Your task to perform on an android device: Go to wifi settings Image 0: 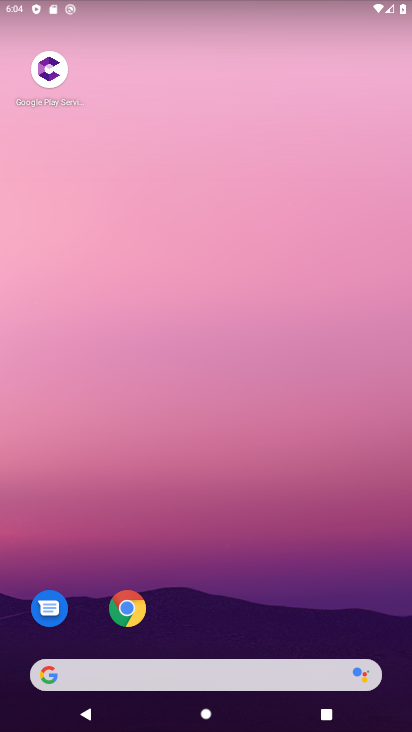
Step 0: drag from (219, 632) to (272, 45)
Your task to perform on an android device: Go to wifi settings Image 1: 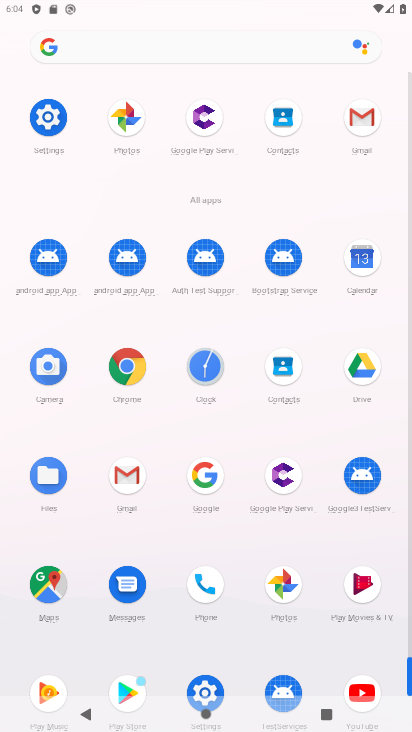
Step 1: click (55, 126)
Your task to perform on an android device: Go to wifi settings Image 2: 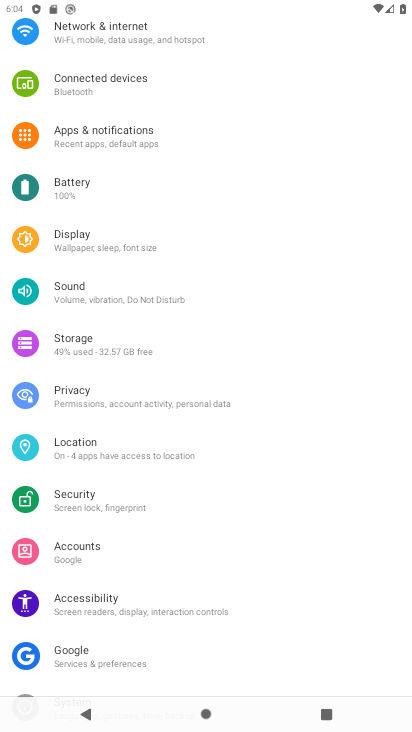
Step 2: drag from (201, 141) to (190, 591)
Your task to perform on an android device: Go to wifi settings Image 3: 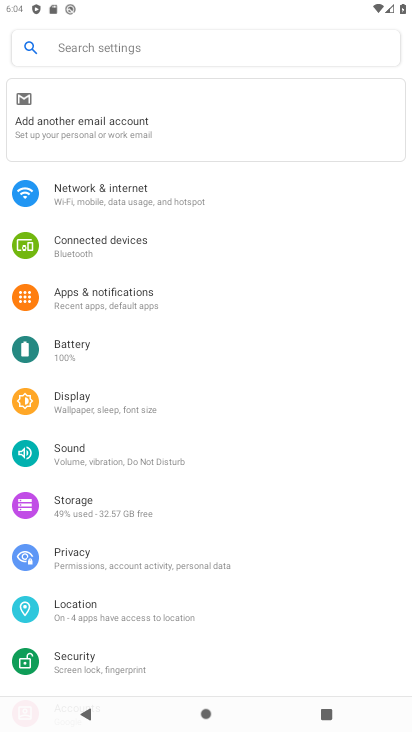
Step 3: click (137, 203)
Your task to perform on an android device: Go to wifi settings Image 4: 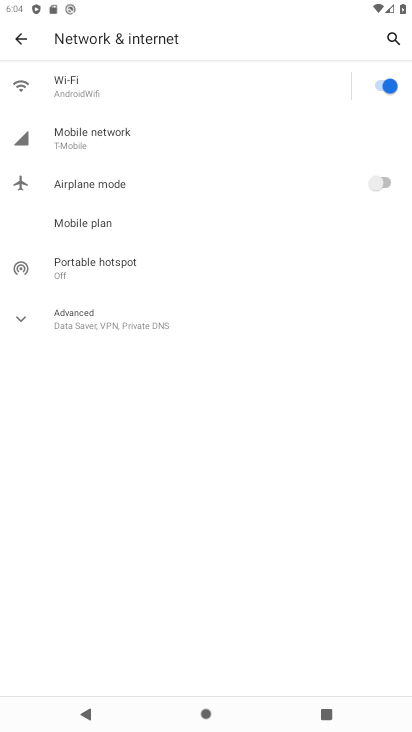
Step 4: click (80, 81)
Your task to perform on an android device: Go to wifi settings Image 5: 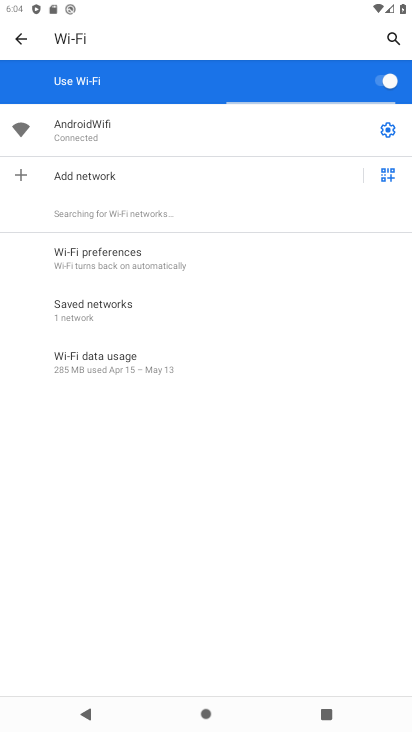
Step 5: task complete